Your task to perform on an android device: turn on sleep mode Image 0: 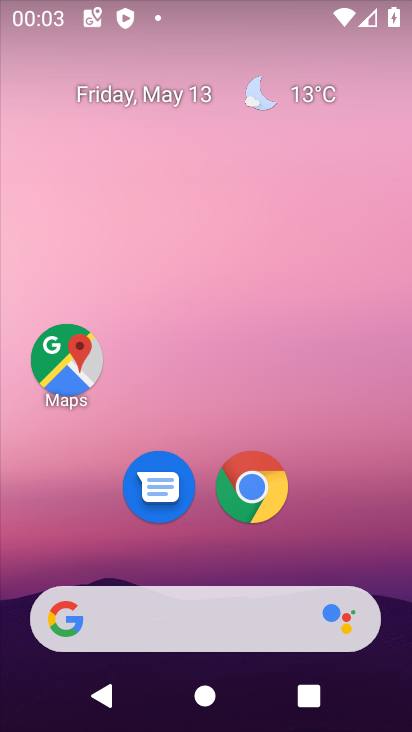
Step 0: drag from (196, 556) to (187, 298)
Your task to perform on an android device: turn on sleep mode Image 1: 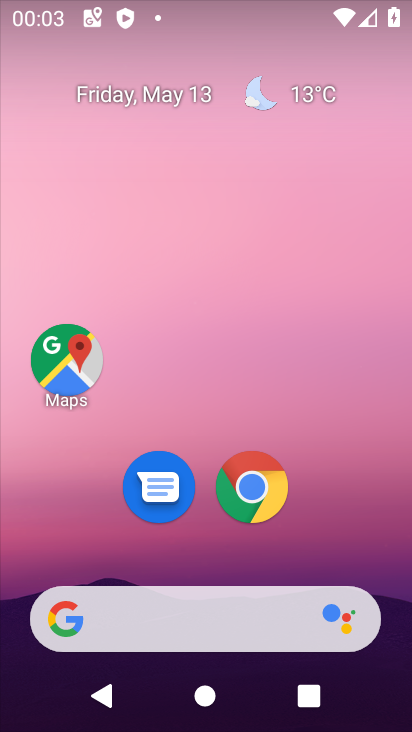
Step 1: drag from (184, 548) to (97, 55)
Your task to perform on an android device: turn on sleep mode Image 2: 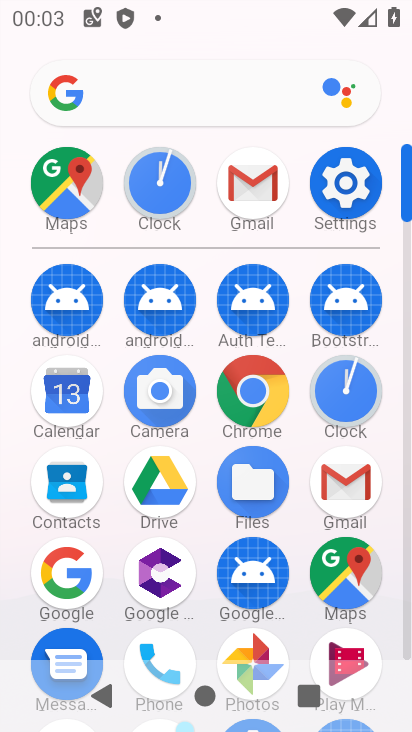
Step 2: click (362, 190)
Your task to perform on an android device: turn on sleep mode Image 3: 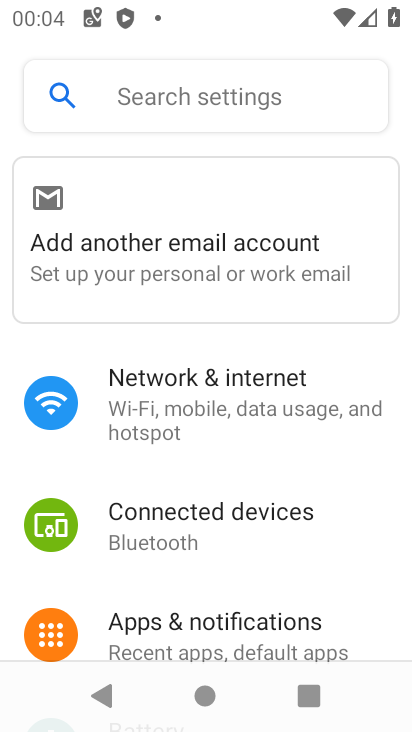
Step 3: task complete